Your task to perform on an android device: toggle wifi Image 0: 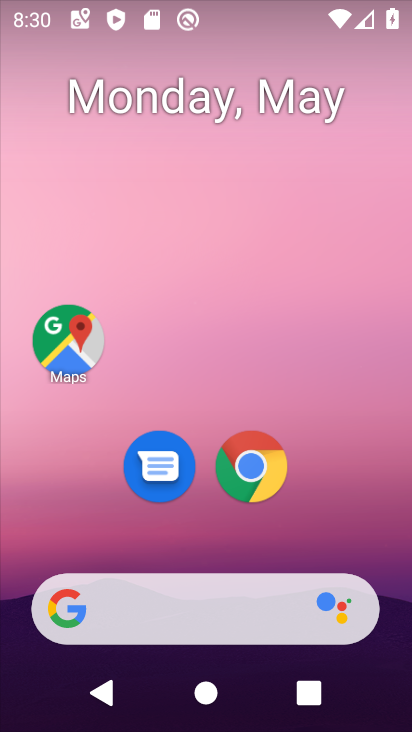
Step 0: drag from (219, 650) to (277, 90)
Your task to perform on an android device: toggle wifi Image 1: 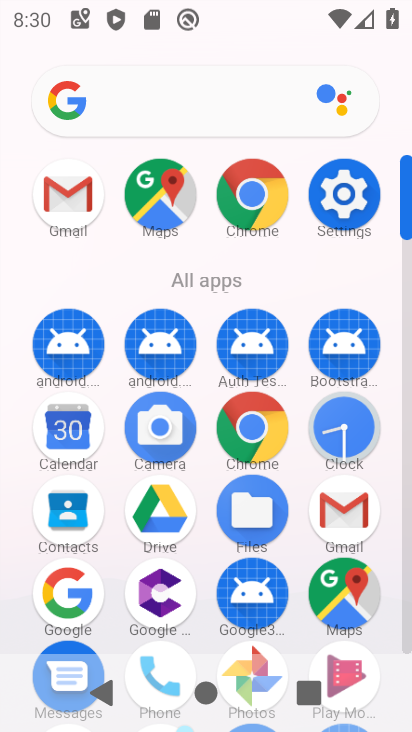
Step 1: click (334, 201)
Your task to perform on an android device: toggle wifi Image 2: 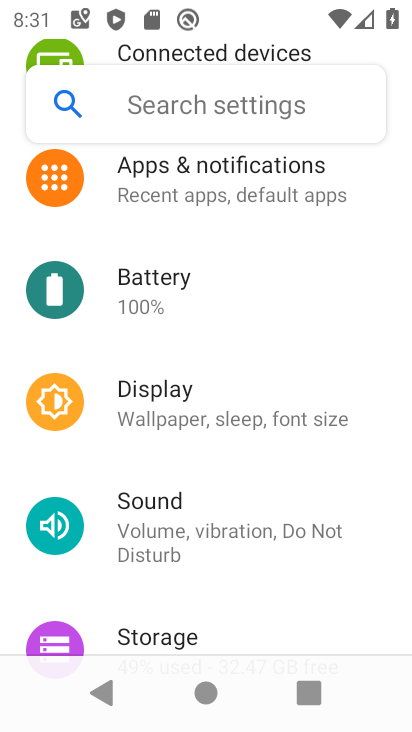
Step 2: drag from (271, 202) to (309, 511)
Your task to perform on an android device: toggle wifi Image 3: 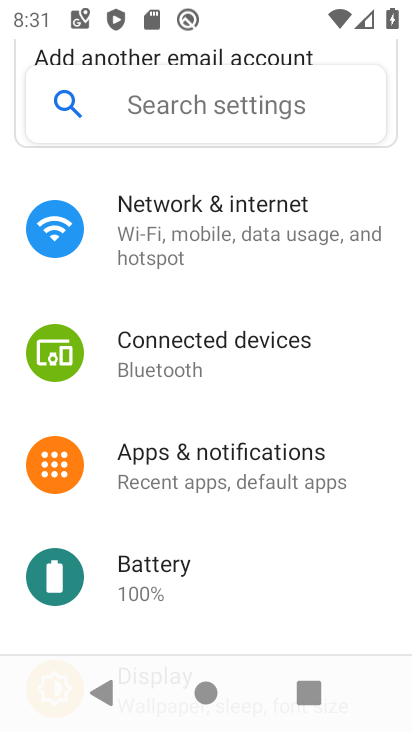
Step 3: click (212, 222)
Your task to perform on an android device: toggle wifi Image 4: 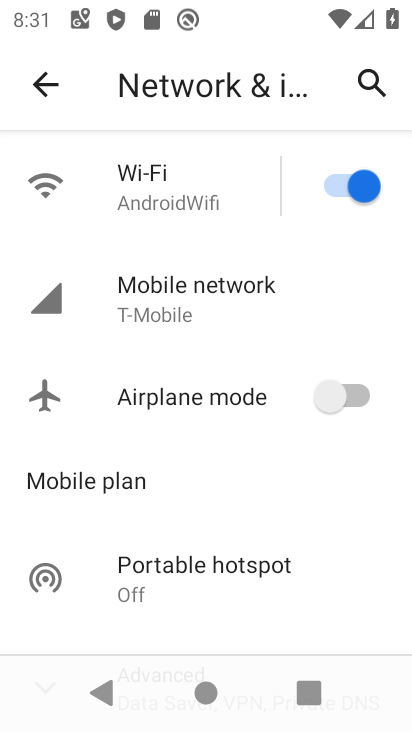
Step 4: click (181, 187)
Your task to perform on an android device: toggle wifi Image 5: 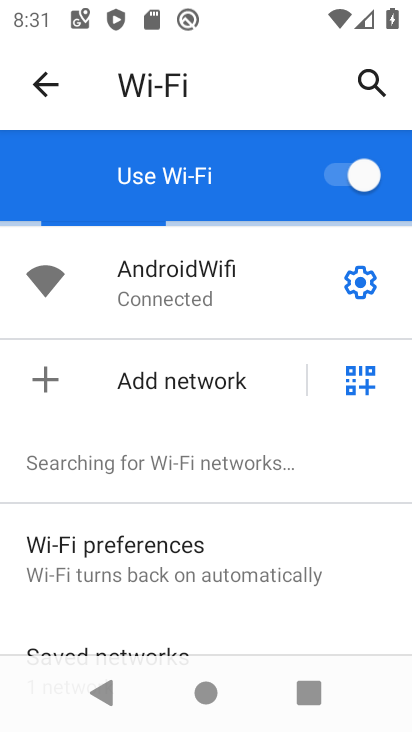
Step 5: task complete